Your task to perform on an android device: Open the Play Movies app and select the watchlist tab. Image 0: 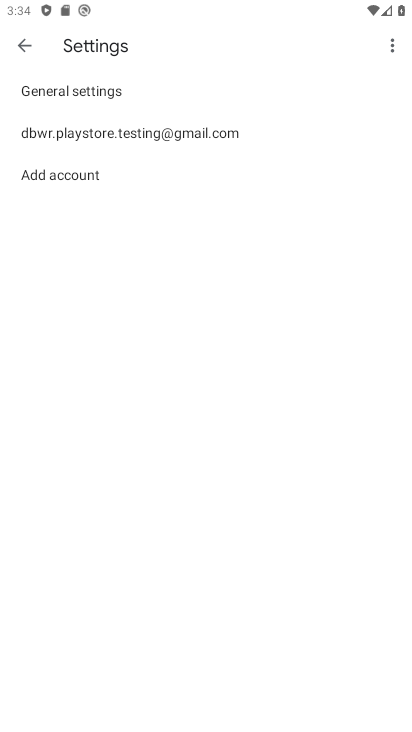
Step 0: press home button
Your task to perform on an android device: Open the Play Movies app and select the watchlist tab. Image 1: 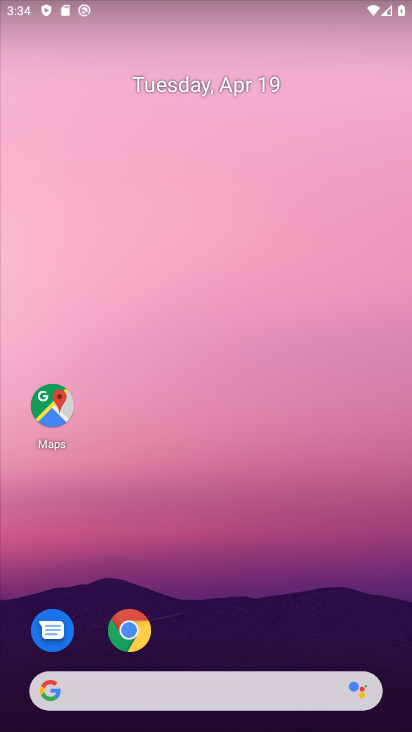
Step 1: drag from (348, 577) to (213, 53)
Your task to perform on an android device: Open the Play Movies app and select the watchlist tab. Image 2: 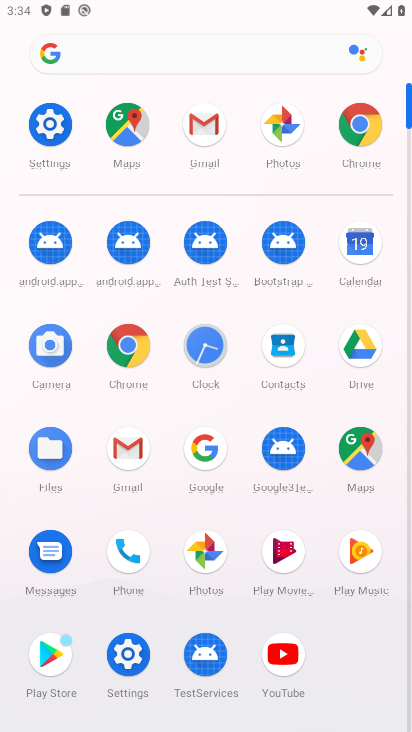
Step 2: click (298, 554)
Your task to perform on an android device: Open the Play Movies app and select the watchlist tab. Image 3: 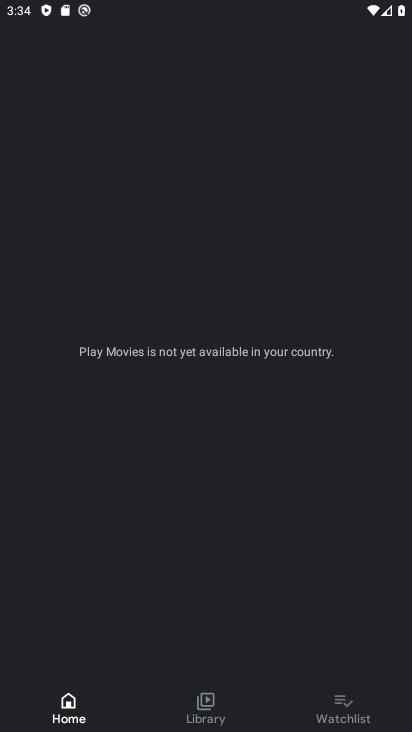
Step 3: click (346, 707)
Your task to perform on an android device: Open the Play Movies app and select the watchlist tab. Image 4: 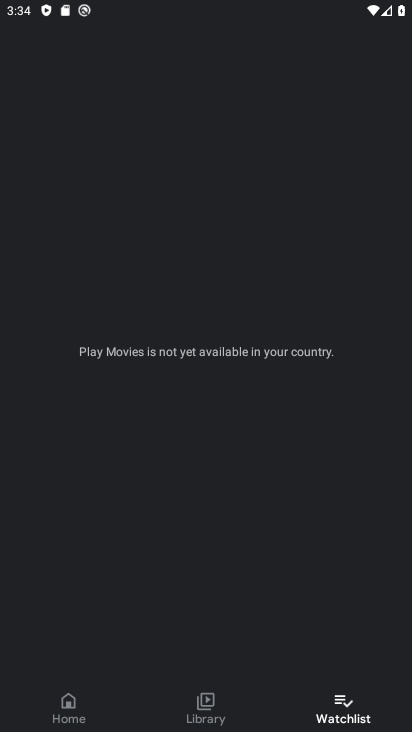
Step 4: task complete